Your task to perform on an android device: Toggle the flashlight Image 0: 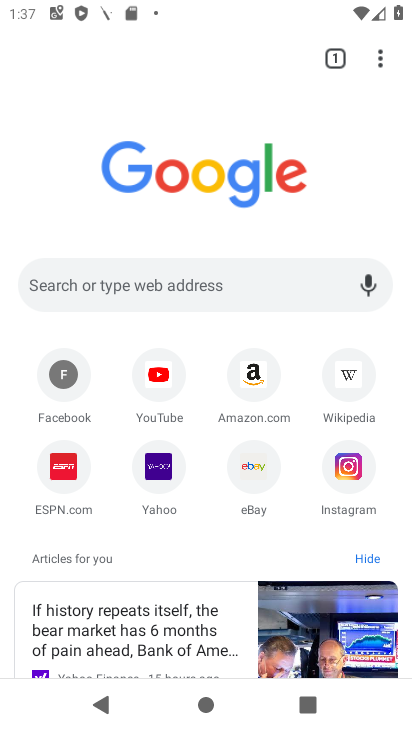
Step 0: press home button
Your task to perform on an android device: Toggle the flashlight Image 1: 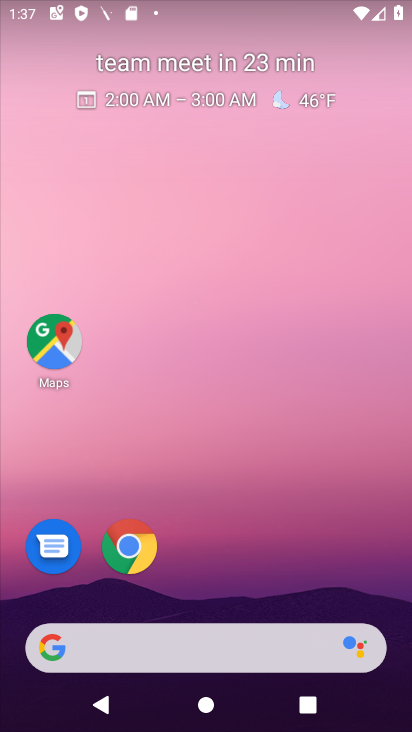
Step 1: drag from (231, 11) to (237, 543)
Your task to perform on an android device: Toggle the flashlight Image 2: 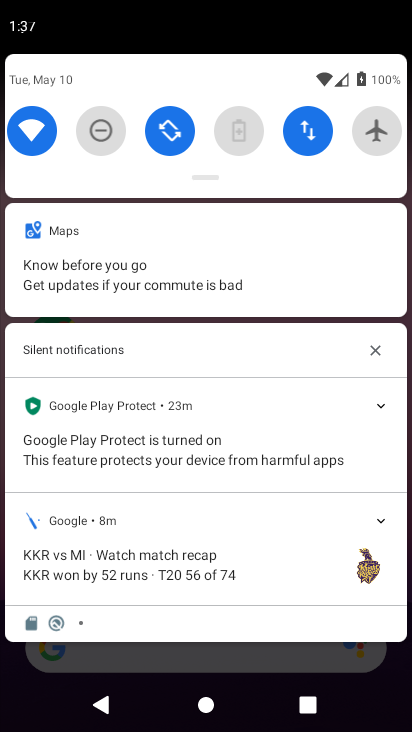
Step 2: drag from (206, 171) to (187, 480)
Your task to perform on an android device: Toggle the flashlight Image 3: 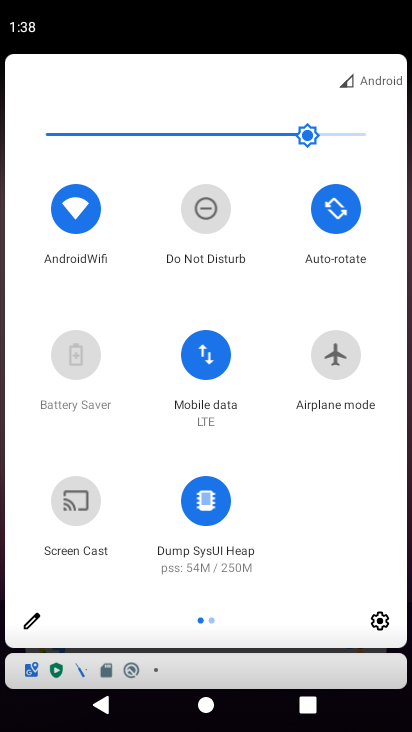
Step 3: click (30, 621)
Your task to perform on an android device: Toggle the flashlight Image 4: 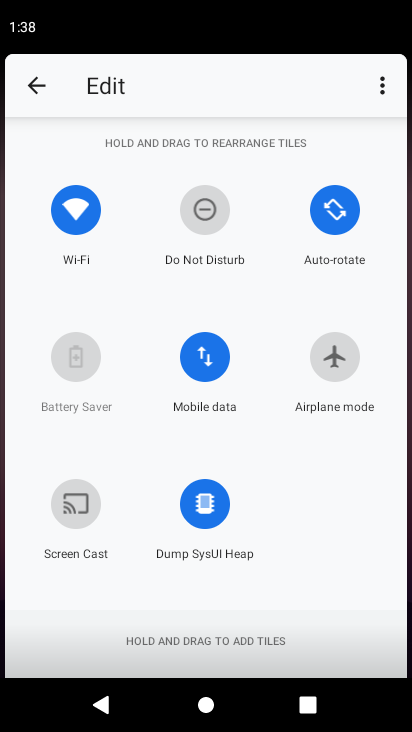
Step 4: task complete